Your task to perform on an android device: When is my next meeting? Image 0: 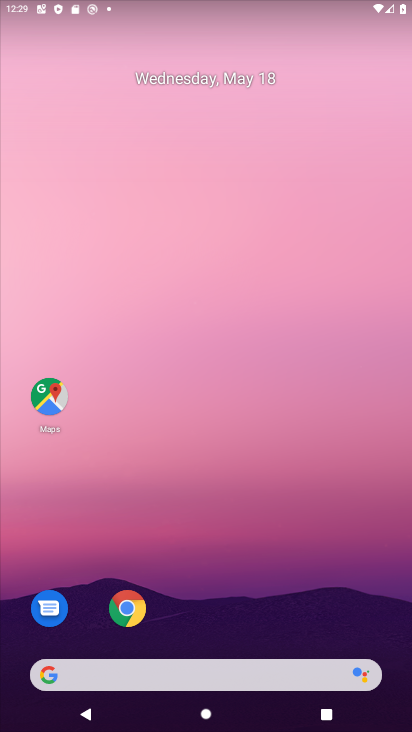
Step 0: drag from (266, 707) to (295, 79)
Your task to perform on an android device: When is my next meeting? Image 1: 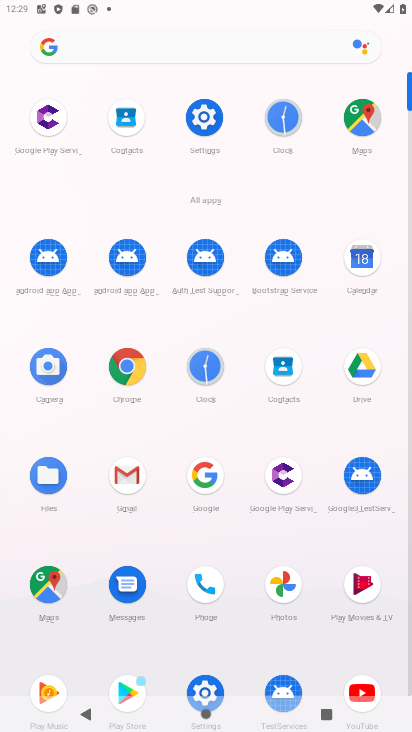
Step 1: click (366, 262)
Your task to perform on an android device: When is my next meeting? Image 2: 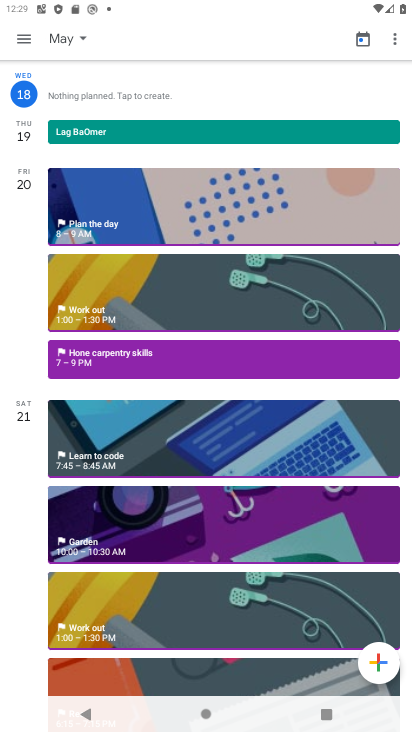
Step 2: task complete